Your task to perform on an android device: turn notification dots on Image 0: 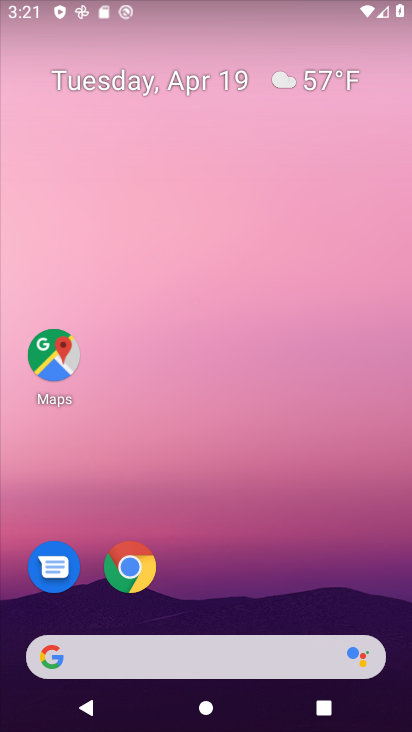
Step 0: drag from (379, 581) to (371, 197)
Your task to perform on an android device: turn notification dots on Image 1: 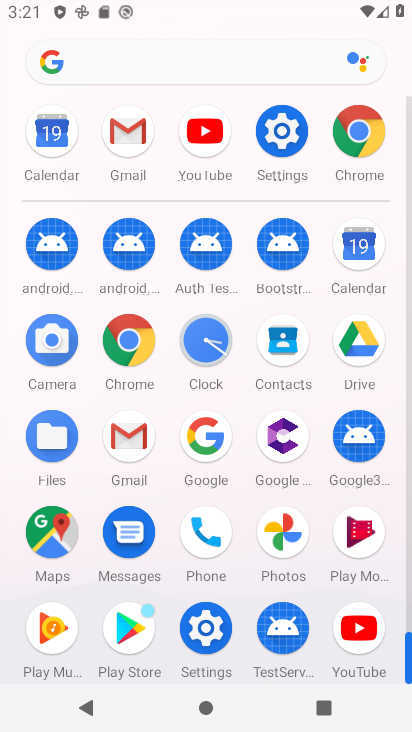
Step 1: click (279, 136)
Your task to perform on an android device: turn notification dots on Image 2: 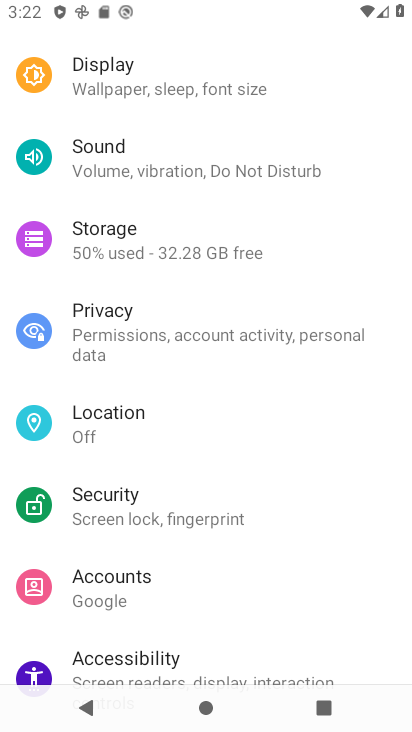
Step 2: drag from (357, 545) to (370, 272)
Your task to perform on an android device: turn notification dots on Image 3: 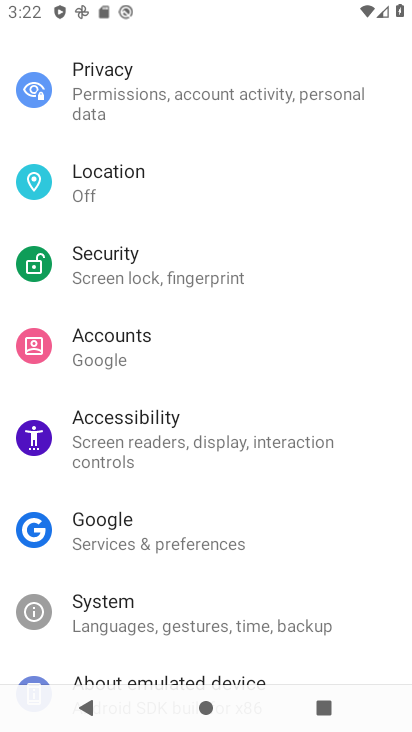
Step 3: drag from (375, 619) to (383, 351)
Your task to perform on an android device: turn notification dots on Image 4: 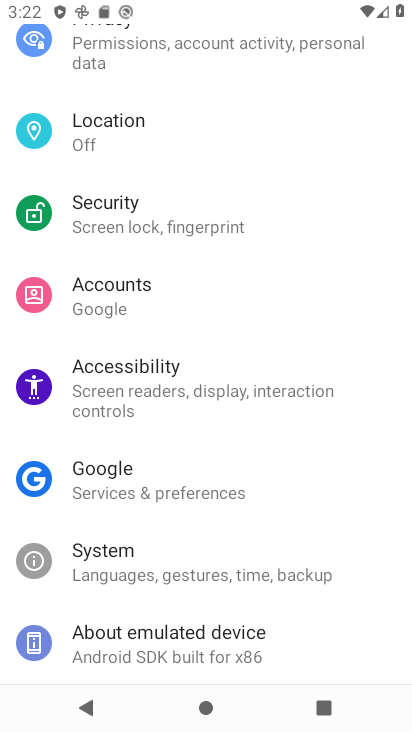
Step 4: drag from (375, 307) to (360, 507)
Your task to perform on an android device: turn notification dots on Image 5: 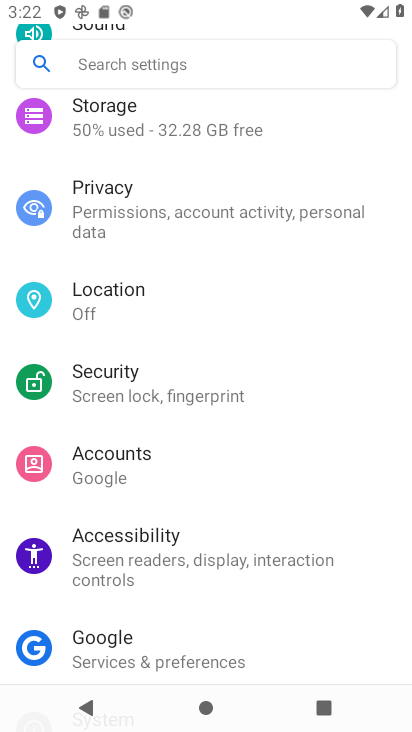
Step 5: drag from (358, 283) to (368, 486)
Your task to perform on an android device: turn notification dots on Image 6: 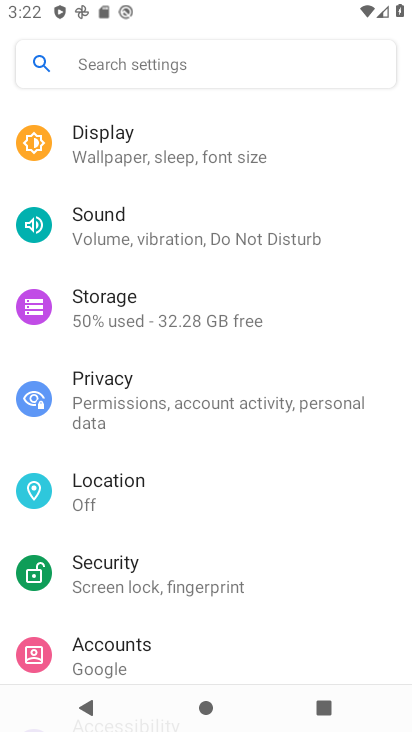
Step 6: drag from (384, 276) to (382, 523)
Your task to perform on an android device: turn notification dots on Image 7: 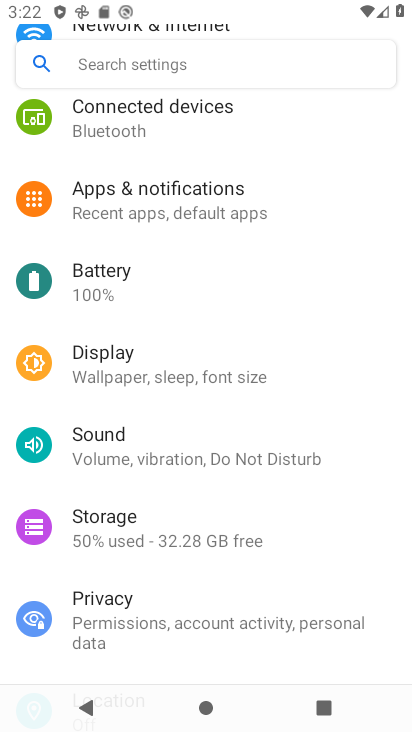
Step 7: drag from (377, 250) to (394, 447)
Your task to perform on an android device: turn notification dots on Image 8: 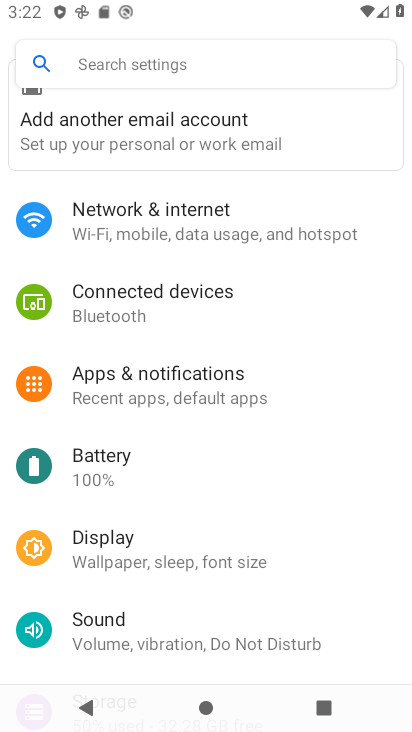
Step 8: click (152, 376)
Your task to perform on an android device: turn notification dots on Image 9: 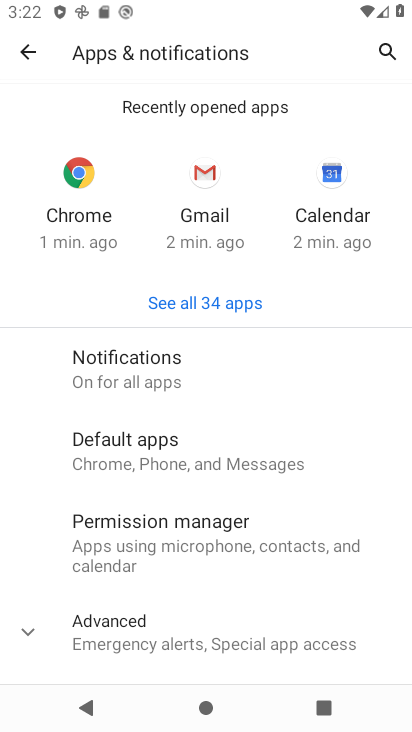
Step 9: drag from (372, 579) to (369, 303)
Your task to perform on an android device: turn notification dots on Image 10: 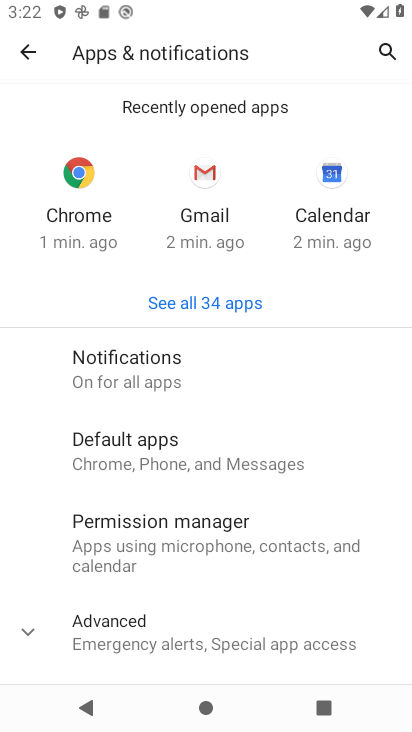
Step 10: click (121, 359)
Your task to perform on an android device: turn notification dots on Image 11: 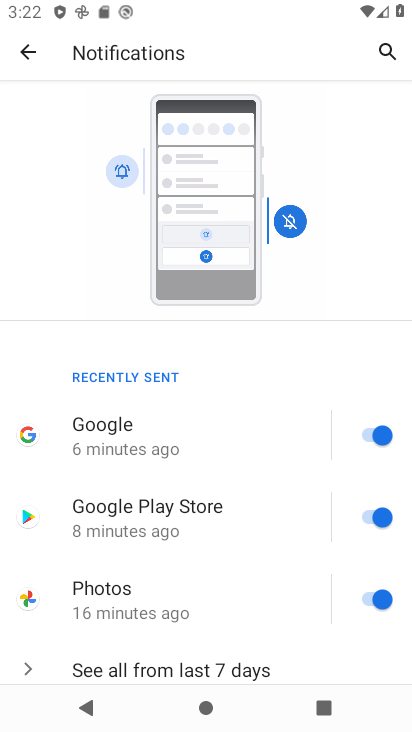
Step 11: drag from (291, 555) to (290, 269)
Your task to perform on an android device: turn notification dots on Image 12: 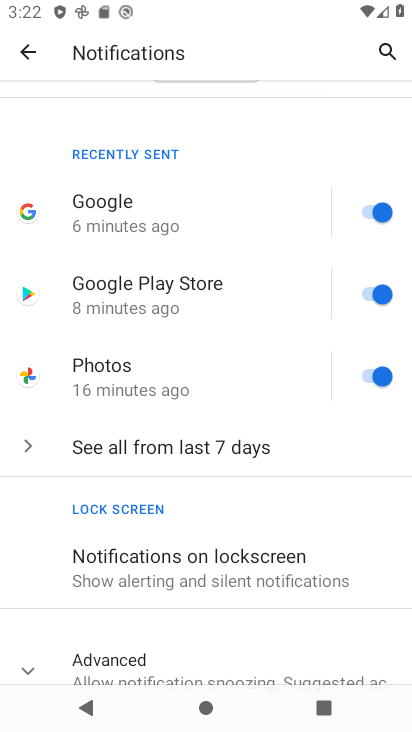
Step 12: drag from (323, 579) to (325, 317)
Your task to perform on an android device: turn notification dots on Image 13: 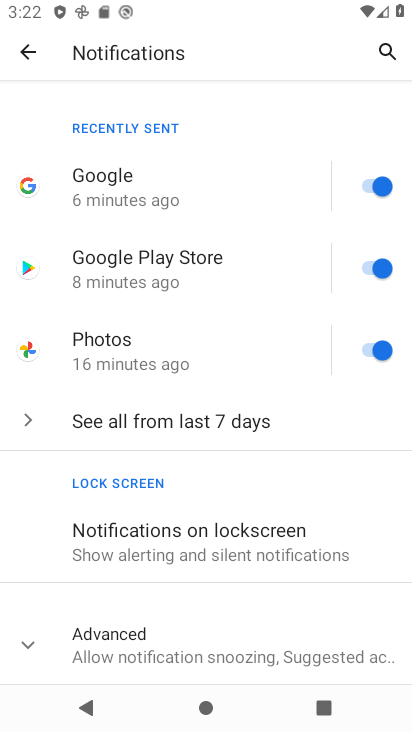
Step 13: click (134, 642)
Your task to perform on an android device: turn notification dots on Image 14: 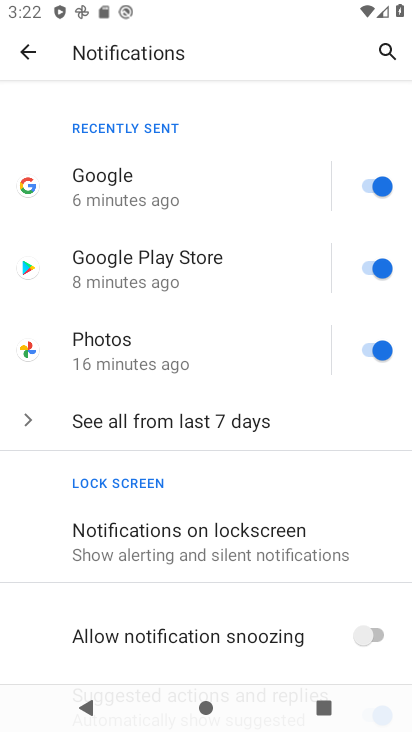
Step 14: task complete